Your task to perform on an android device: turn on data saver in the chrome app Image 0: 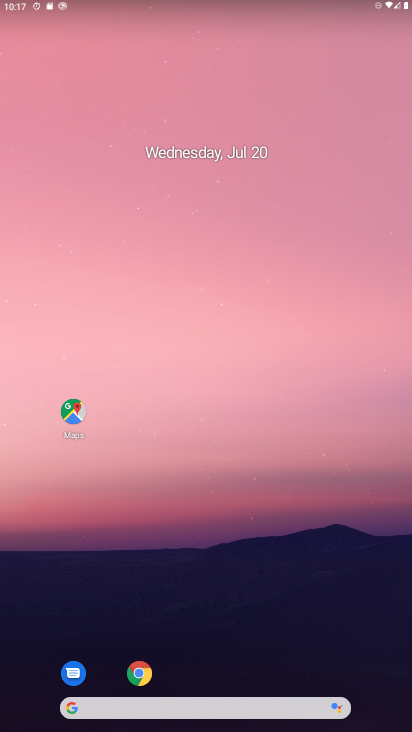
Step 0: drag from (325, 673) to (151, 27)
Your task to perform on an android device: turn on data saver in the chrome app Image 1: 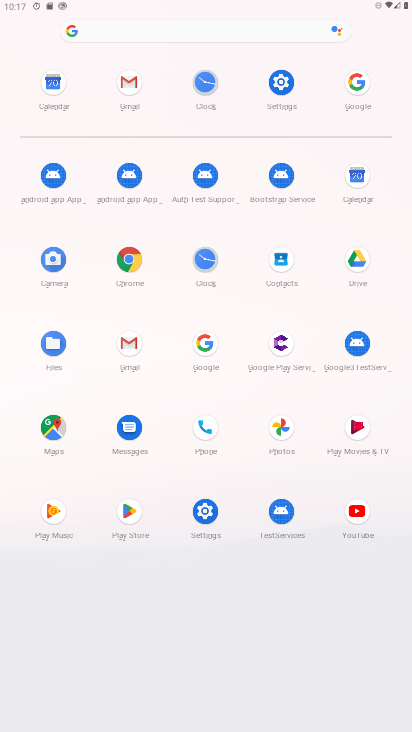
Step 1: click (125, 276)
Your task to perform on an android device: turn on data saver in the chrome app Image 2: 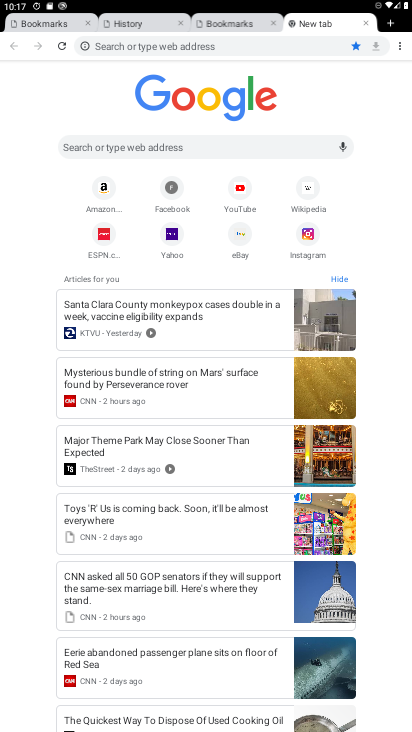
Step 2: click (402, 48)
Your task to perform on an android device: turn on data saver in the chrome app Image 3: 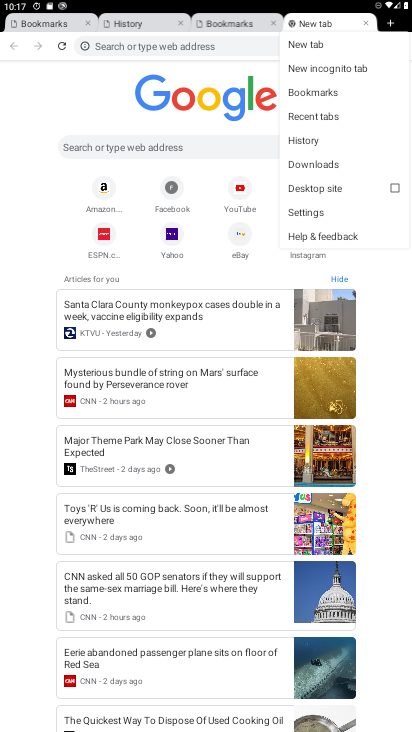
Step 3: click (324, 207)
Your task to perform on an android device: turn on data saver in the chrome app Image 4: 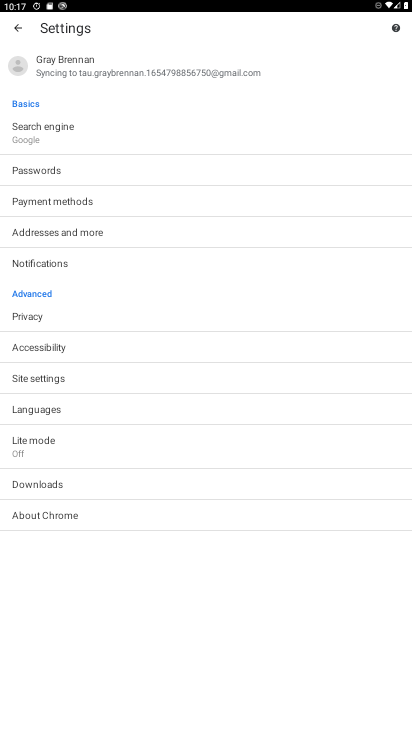
Step 4: click (50, 456)
Your task to perform on an android device: turn on data saver in the chrome app Image 5: 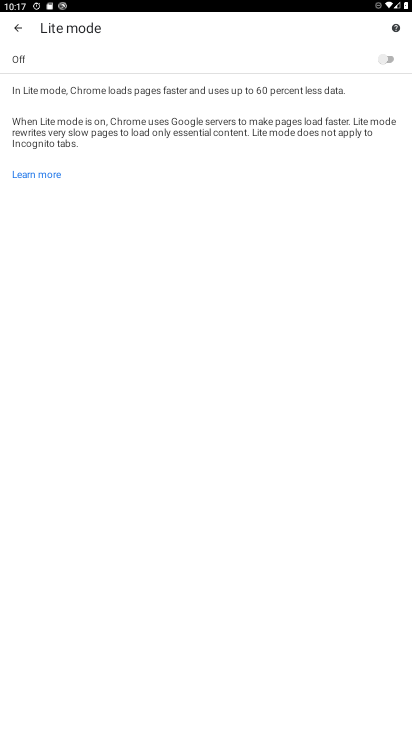
Step 5: click (388, 57)
Your task to perform on an android device: turn on data saver in the chrome app Image 6: 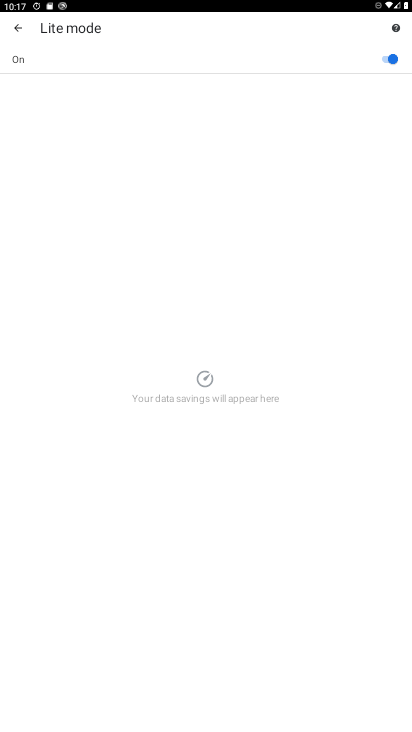
Step 6: task complete